Your task to perform on an android device: Show me productivity apps on the Play Store Image 0: 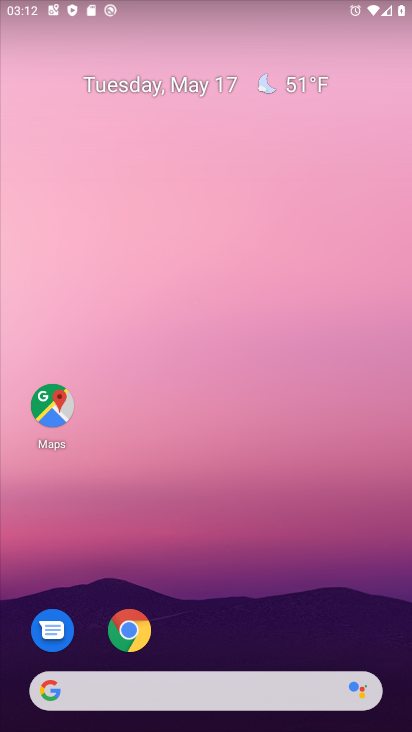
Step 0: drag from (242, 605) to (301, 35)
Your task to perform on an android device: Show me productivity apps on the Play Store Image 1: 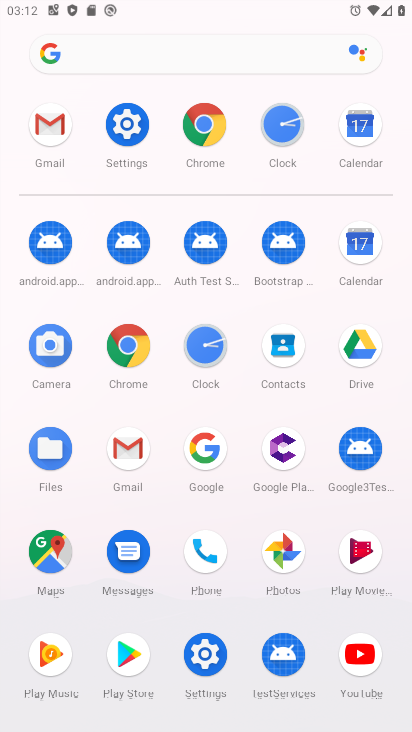
Step 1: click (111, 655)
Your task to perform on an android device: Show me productivity apps on the Play Store Image 2: 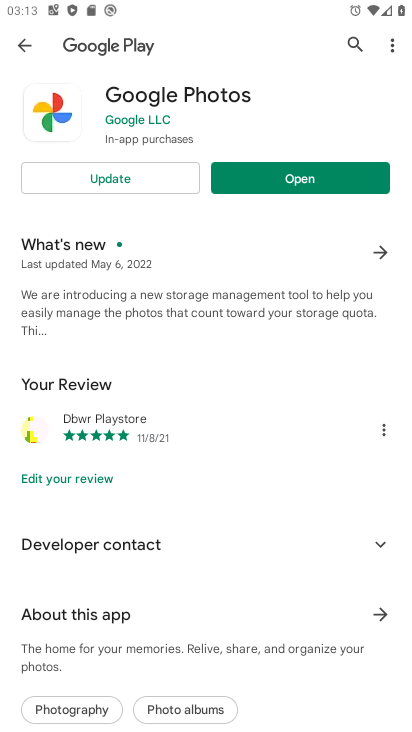
Step 2: click (31, 46)
Your task to perform on an android device: Show me productivity apps on the Play Store Image 3: 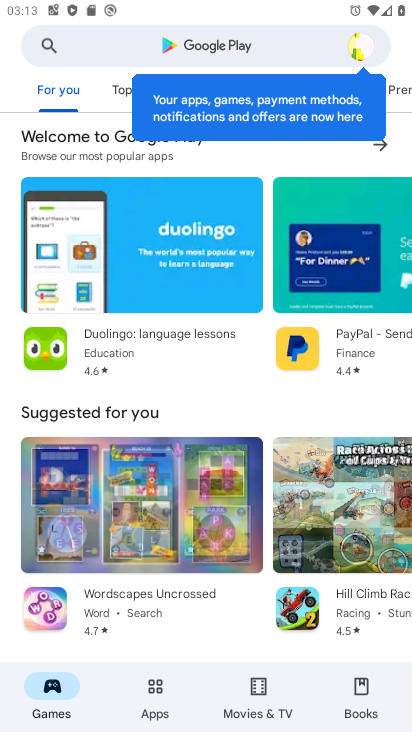
Step 3: click (156, 690)
Your task to perform on an android device: Show me productivity apps on the Play Store Image 4: 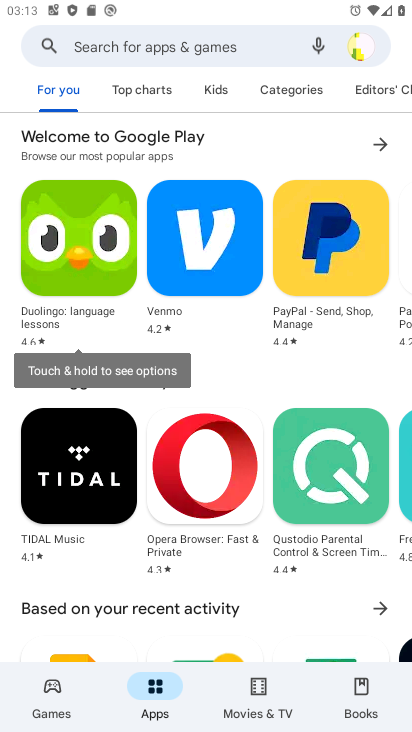
Step 4: drag from (220, 294) to (248, 356)
Your task to perform on an android device: Show me productivity apps on the Play Store Image 5: 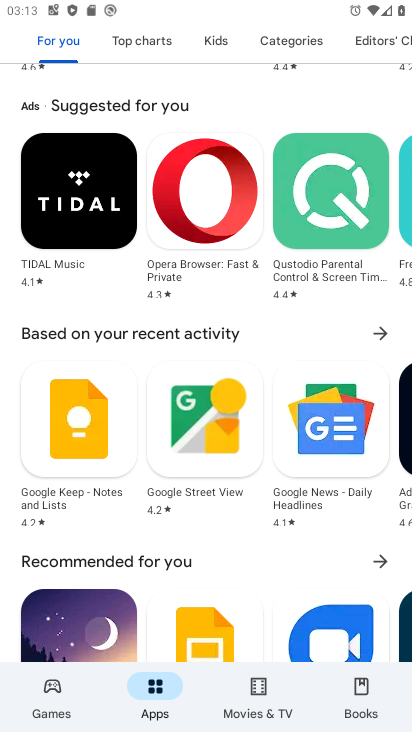
Step 5: drag from (179, 623) to (228, 285)
Your task to perform on an android device: Show me productivity apps on the Play Store Image 6: 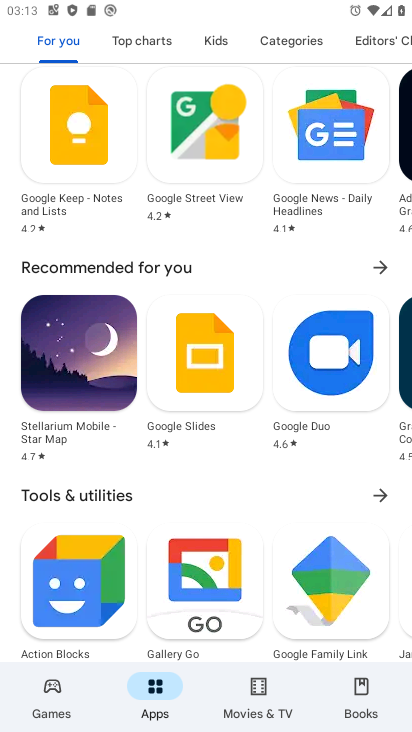
Step 6: drag from (189, 553) to (279, 115)
Your task to perform on an android device: Show me productivity apps on the Play Store Image 7: 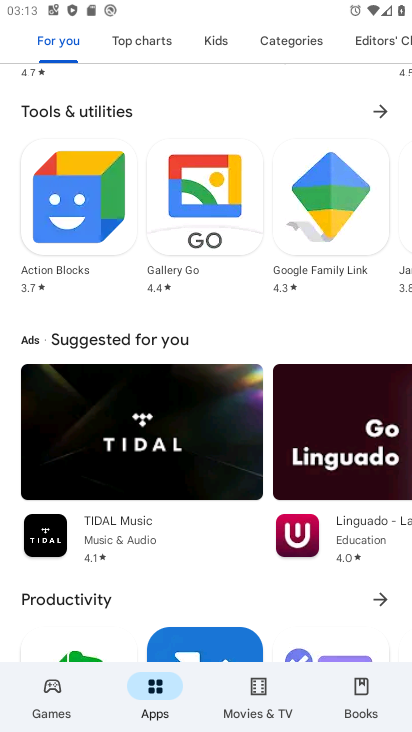
Step 7: drag from (214, 607) to (274, 217)
Your task to perform on an android device: Show me productivity apps on the Play Store Image 8: 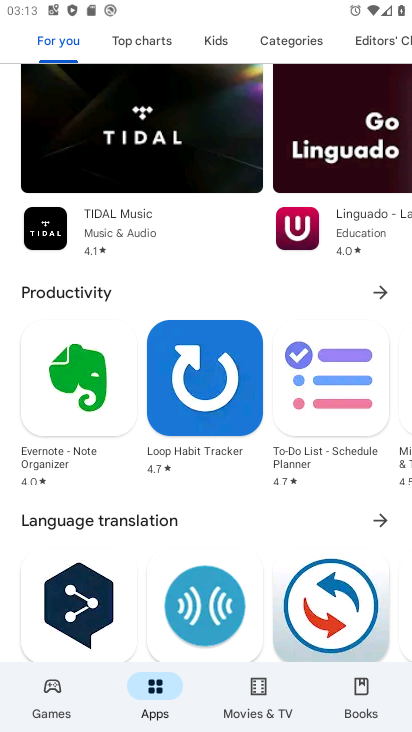
Step 8: click (369, 287)
Your task to perform on an android device: Show me productivity apps on the Play Store Image 9: 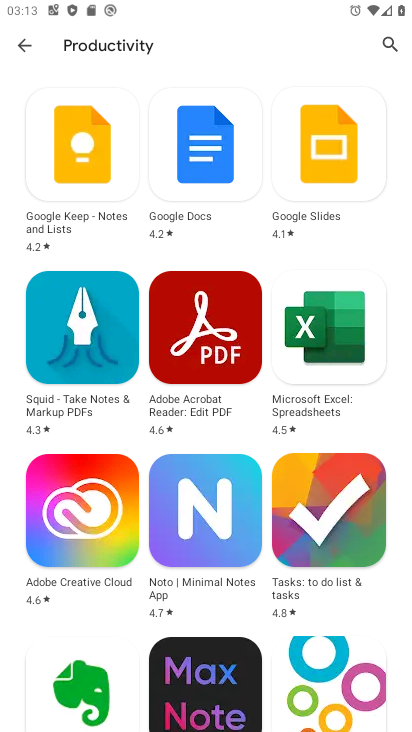
Step 9: task complete